Your task to perform on an android device: turn off data saver in the chrome app Image 0: 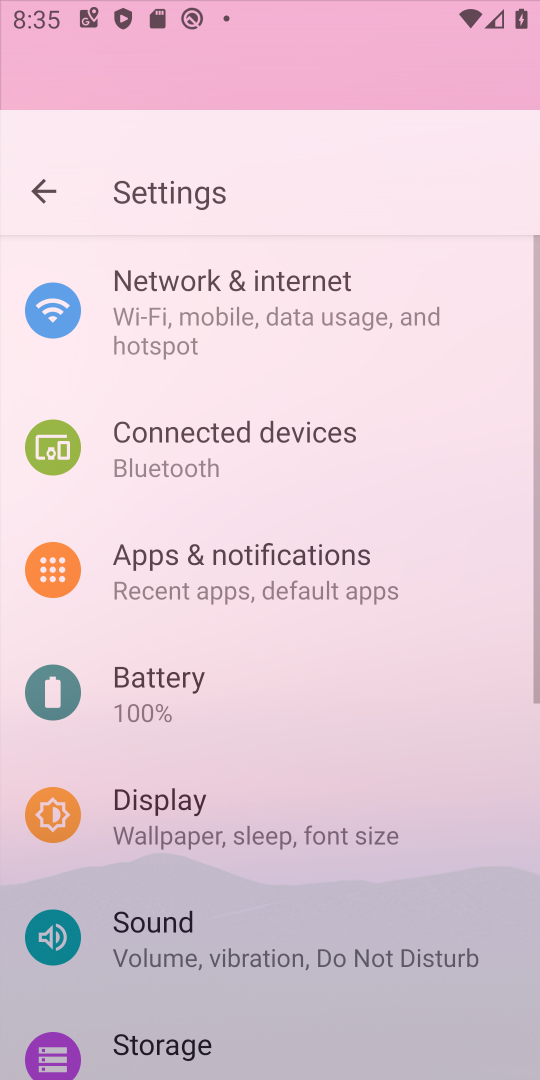
Step 0: drag from (277, 895) to (297, 34)
Your task to perform on an android device: turn off data saver in the chrome app Image 1: 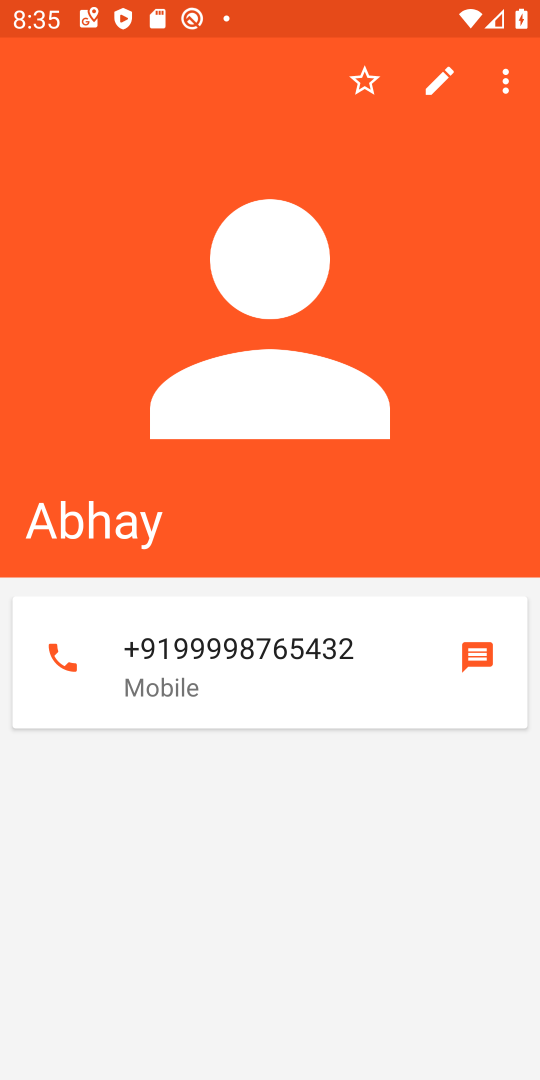
Step 1: press home button
Your task to perform on an android device: turn off data saver in the chrome app Image 2: 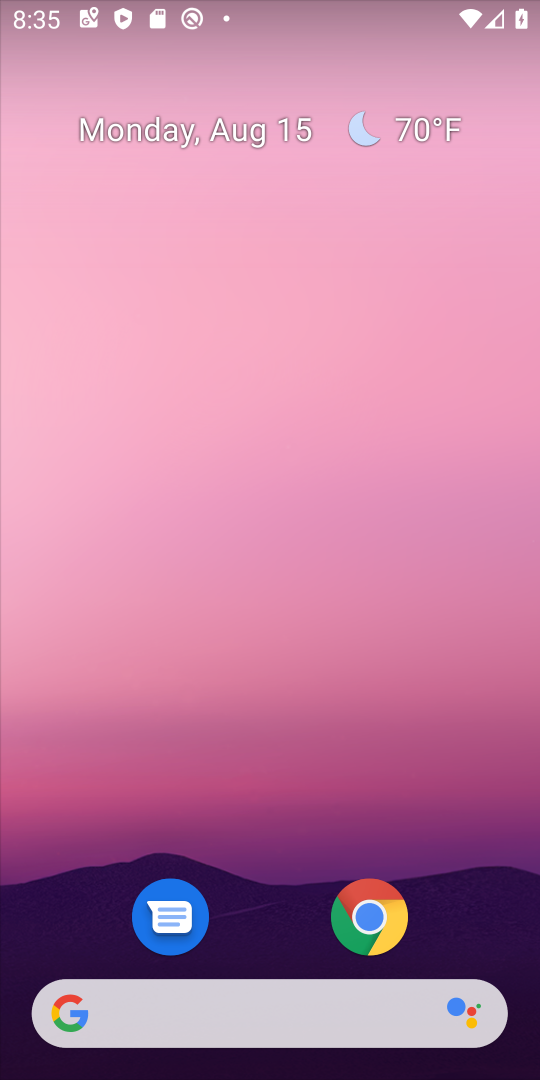
Step 2: click (373, 921)
Your task to perform on an android device: turn off data saver in the chrome app Image 3: 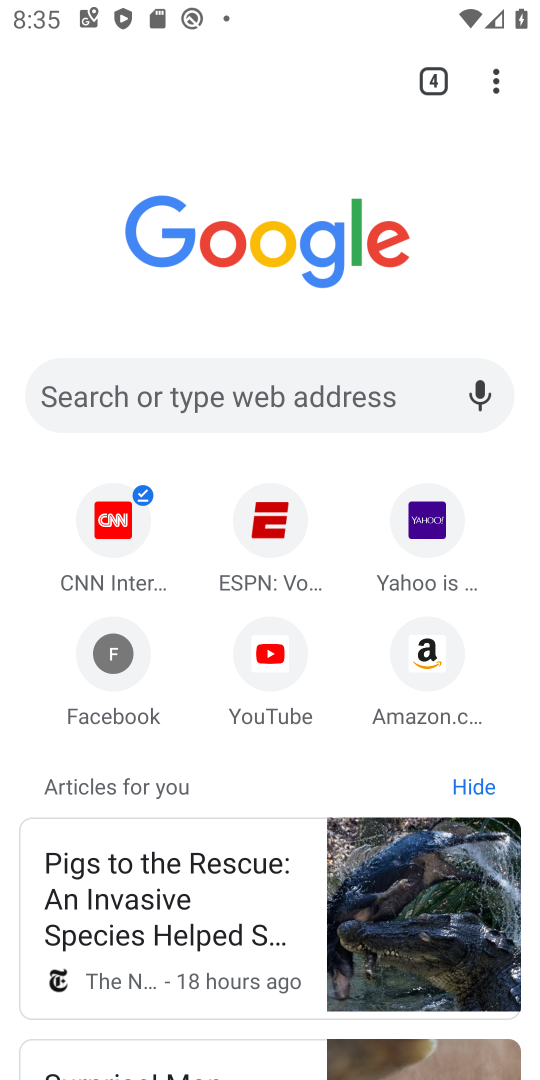
Step 3: click (490, 76)
Your task to perform on an android device: turn off data saver in the chrome app Image 4: 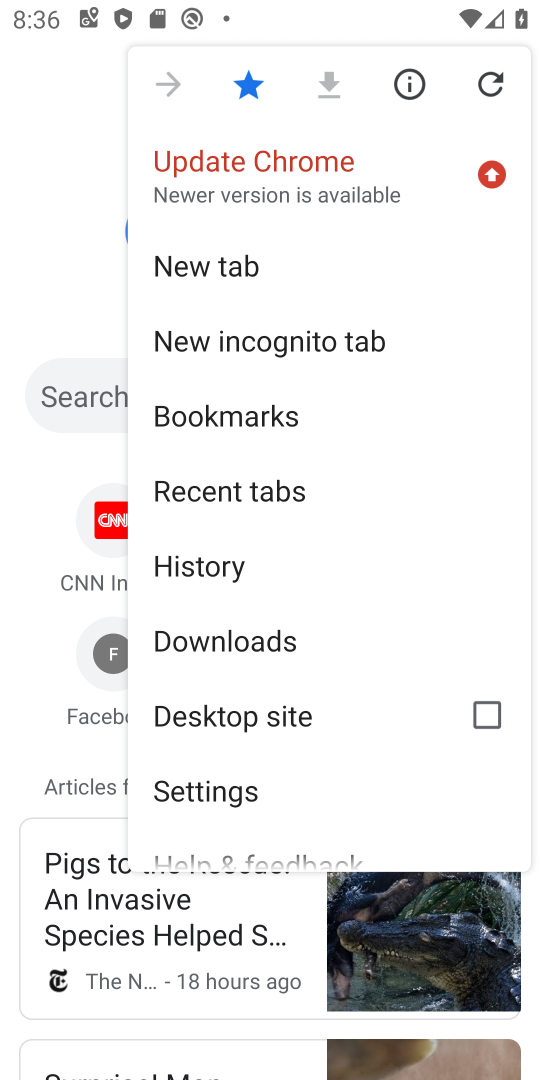
Step 4: click (230, 784)
Your task to perform on an android device: turn off data saver in the chrome app Image 5: 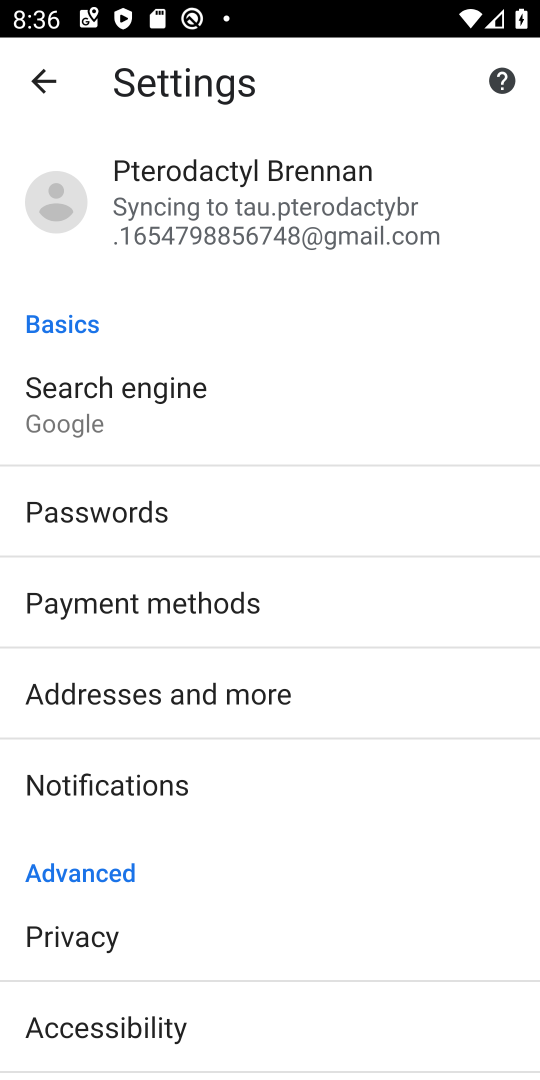
Step 5: drag from (248, 922) to (349, 294)
Your task to perform on an android device: turn off data saver in the chrome app Image 6: 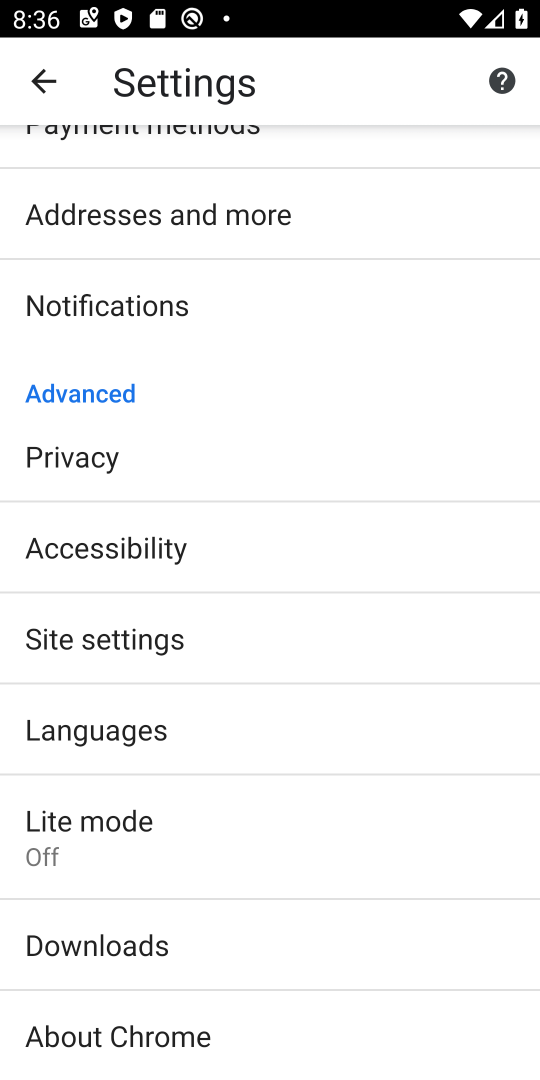
Step 6: click (224, 838)
Your task to perform on an android device: turn off data saver in the chrome app Image 7: 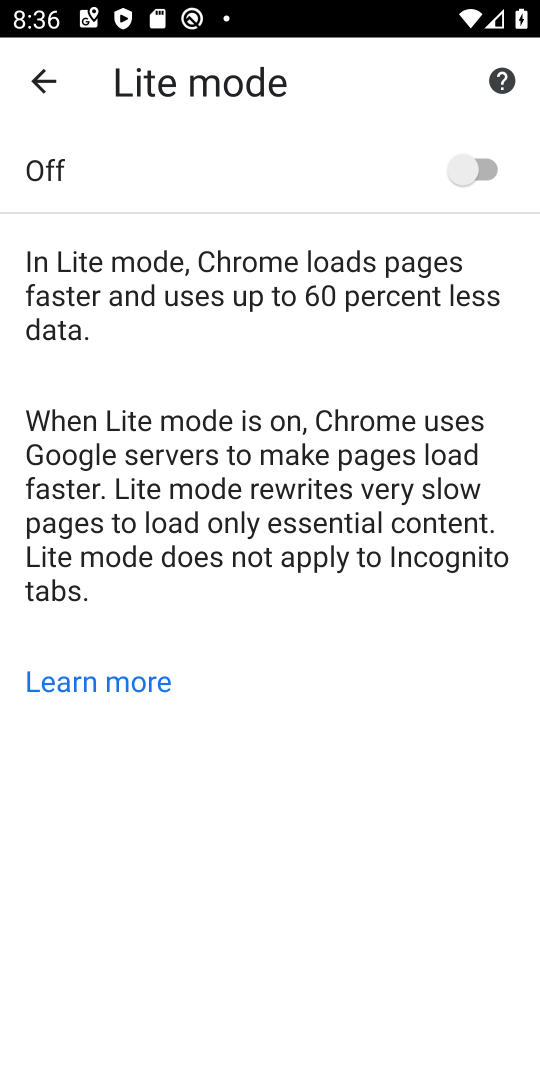
Step 7: task complete